Your task to perform on an android device: When is my next meeting? Image 0: 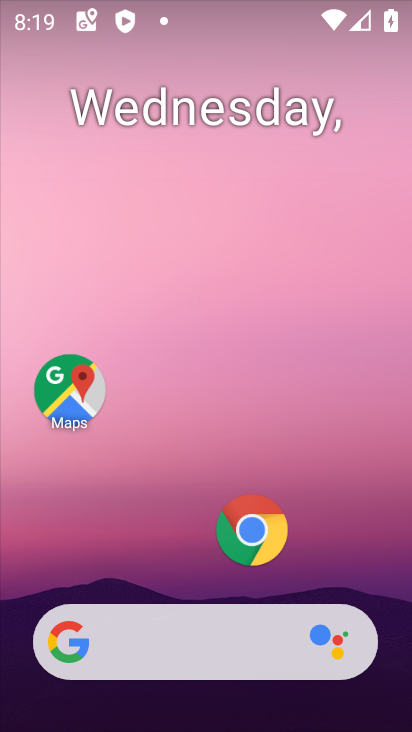
Step 0: drag from (90, 464) to (170, 83)
Your task to perform on an android device: When is my next meeting? Image 1: 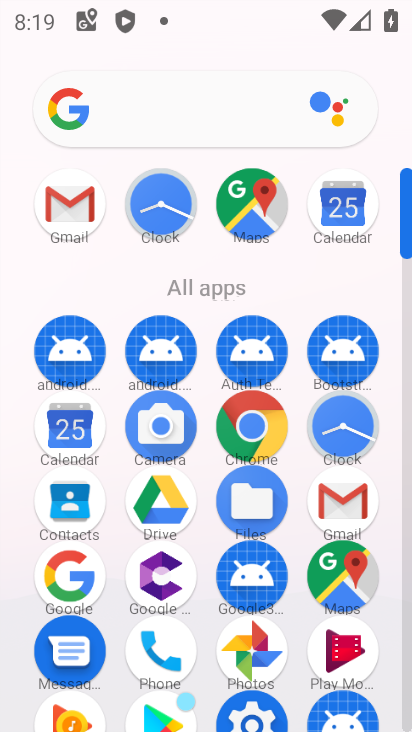
Step 1: click (71, 431)
Your task to perform on an android device: When is my next meeting? Image 2: 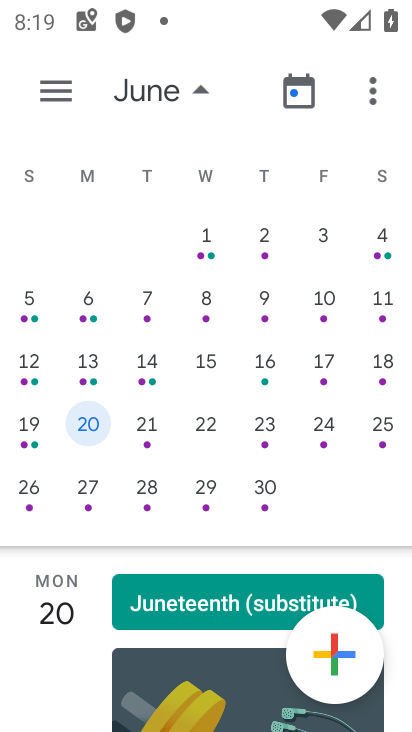
Step 2: drag from (40, 382) to (391, 382)
Your task to perform on an android device: When is my next meeting? Image 3: 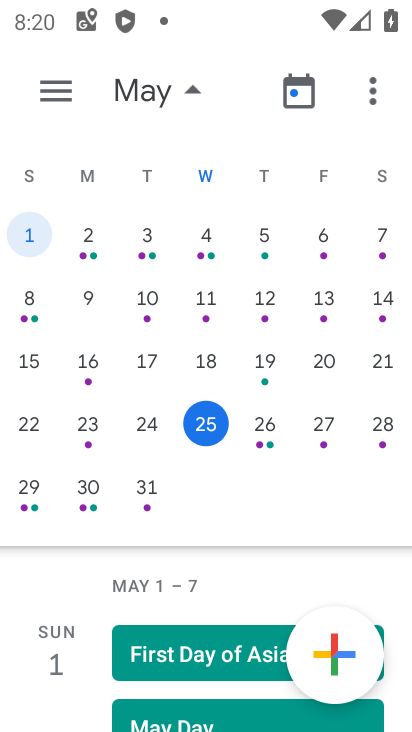
Step 3: drag from (205, 695) to (209, 596)
Your task to perform on an android device: When is my next meeting? Image 4: 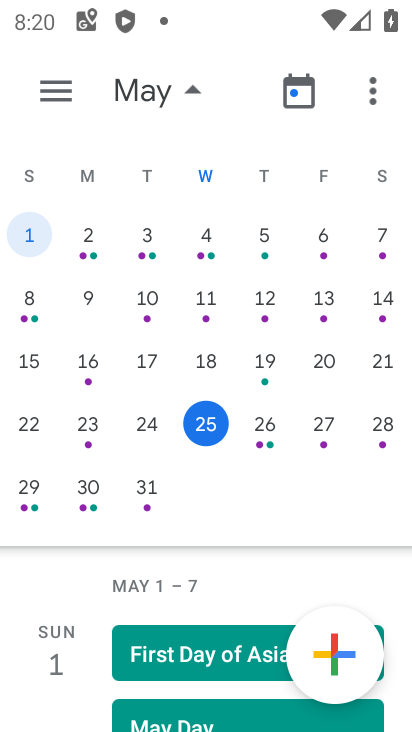
Step 4: click (204, 340)
Your task to perform on an android device: When is my next meeting? Image 5: 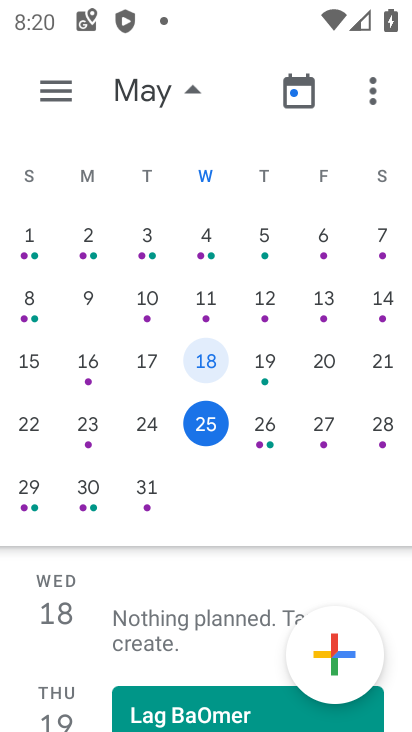
Step 5: click (204, 418)
Your task to perform on an android device: When is my next meeting? Image 6: 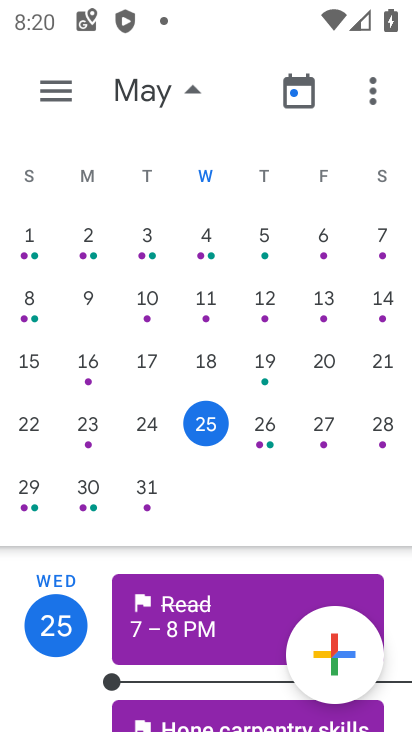
Step 6: task complete